Your task to perform on an android device: turn off location history Image 0: 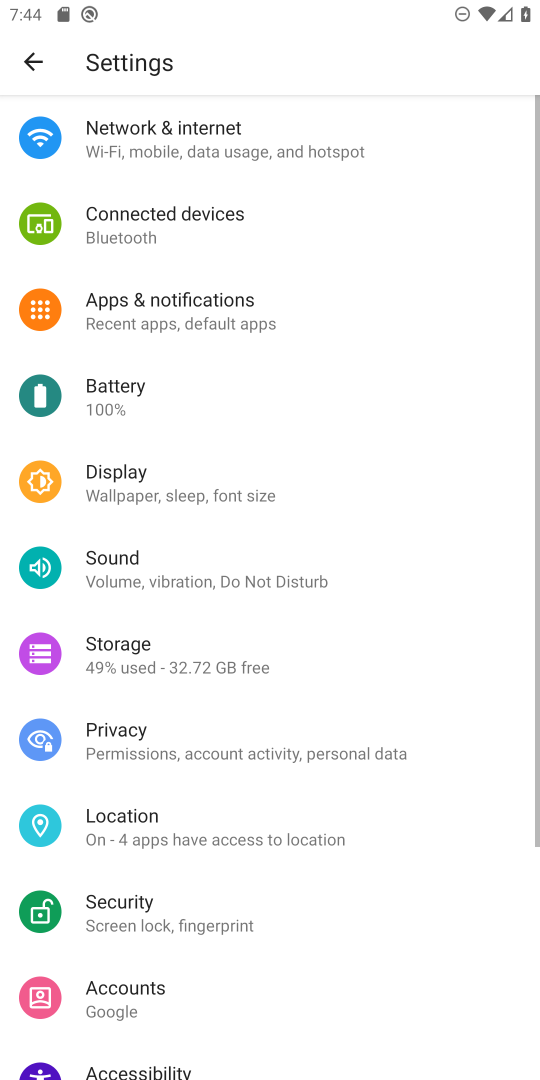
Step 0: click (119, 841)
Your task to perform on an android device: turn off location history Image 1: 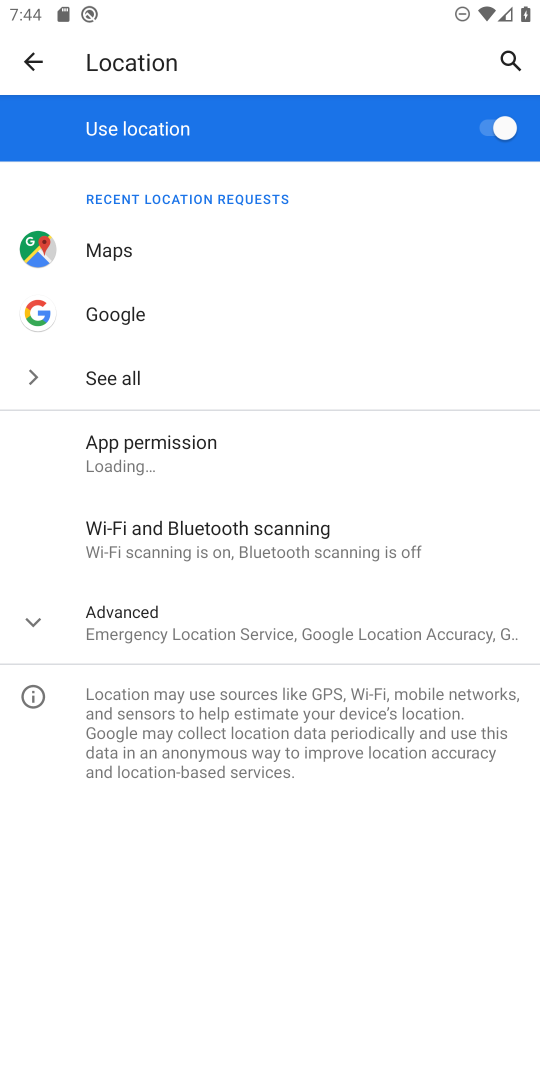
Step 1: click (157, 639)
Your task to perform on an android device: turn off location history Image 2: 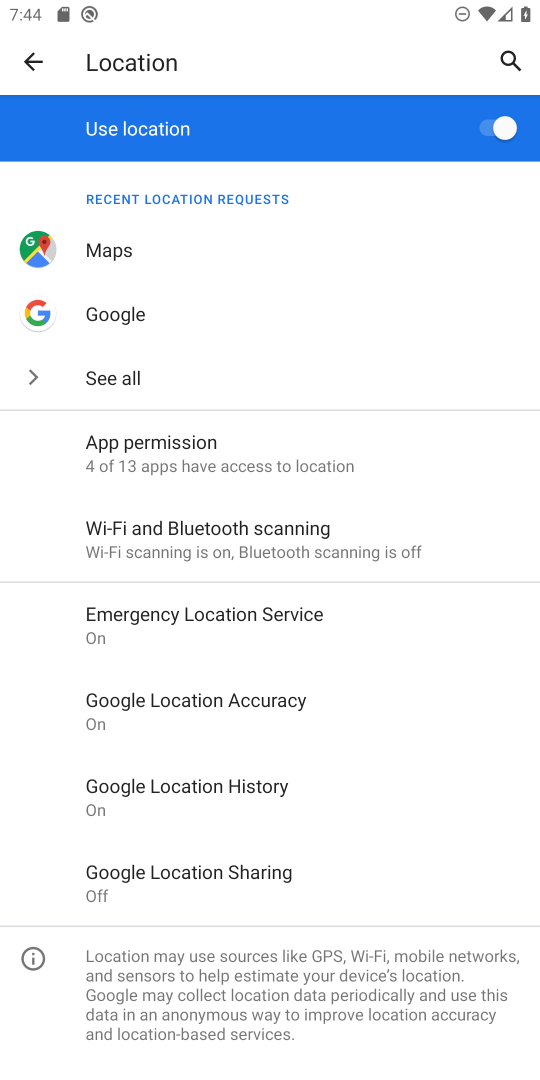
Step 2: click (153, 790)
Your task to perform on an android device: turn off location history Image 3: 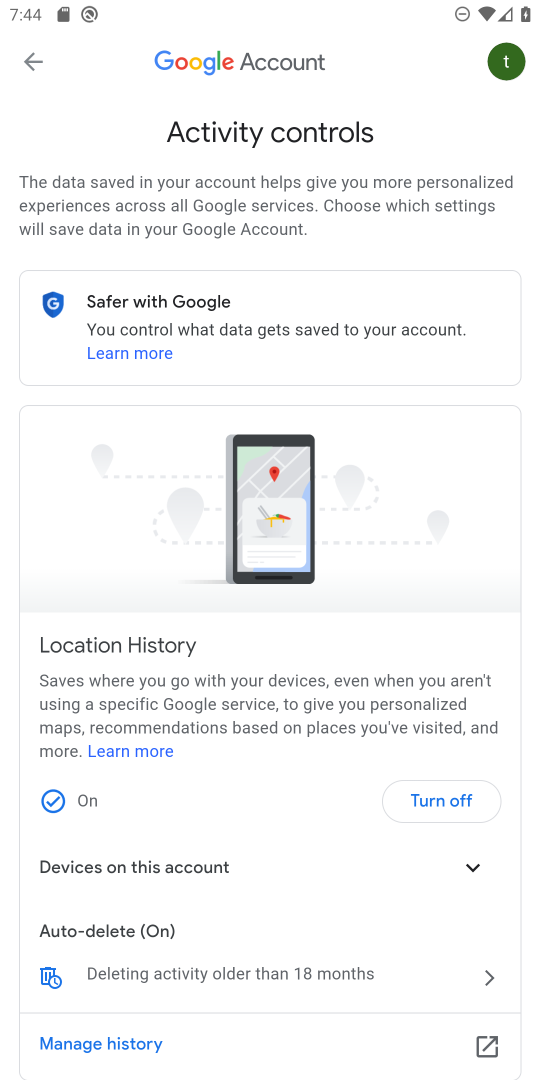
Step 3: click (475, 785)
Your task to perform on an android device: turn off location history Image 4: 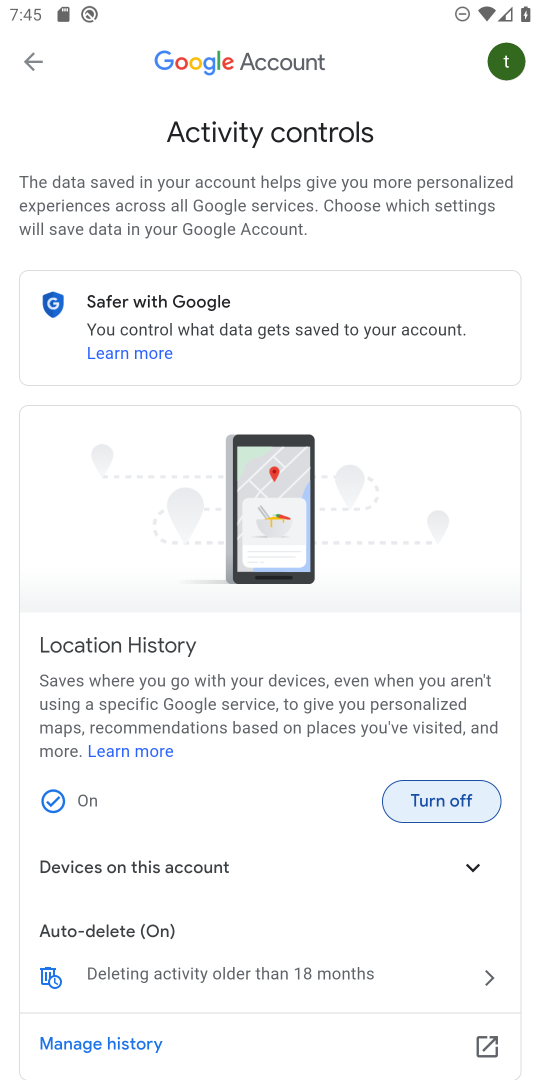
Step 4: click (450, 794)
Your task to perform on an android device: turn off location history Image 5: 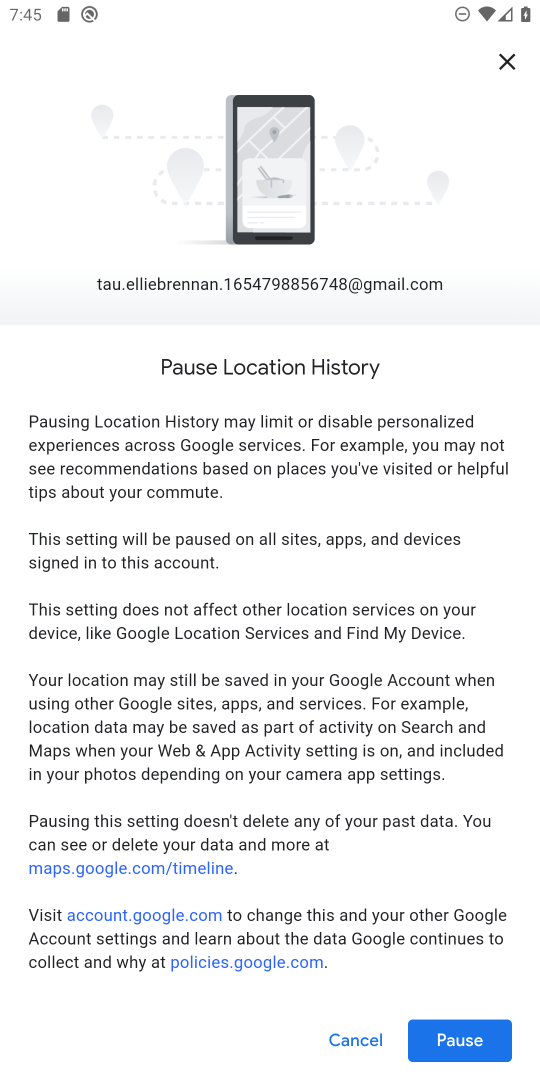
Step 5: click (459, 1039)
Your task to perform on an android device: turn off location history Image 6: 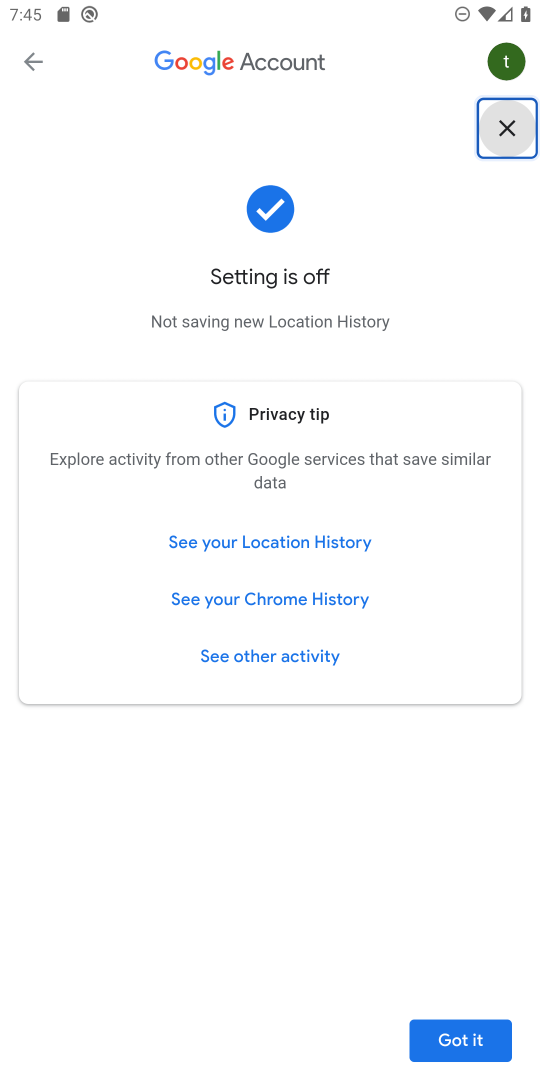
Step 6: task complete